Your task to perform on an android device: toggle notifications settings in the gmail app Image 0: 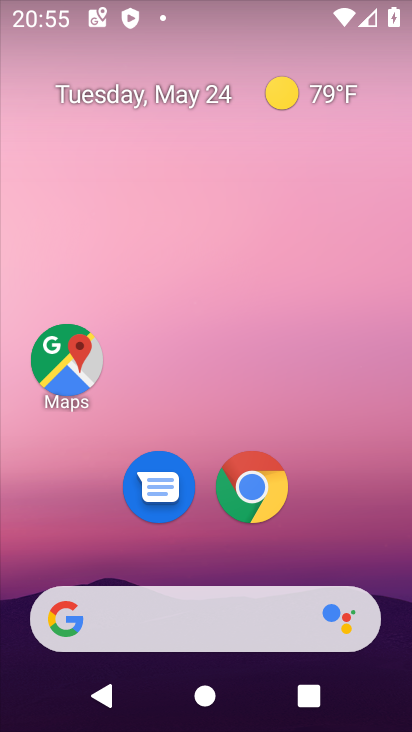
Step 0: press home button
Your task to perform on an android device: toggle notifications settings in the gmail app Image 1: 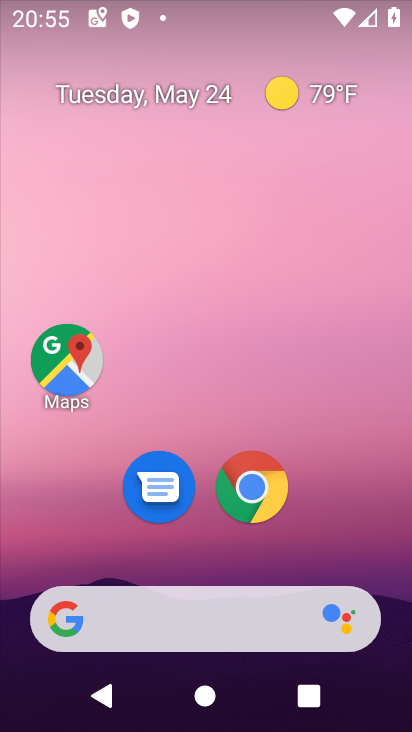
Step 1: drag from (340, 539) to (331, 4)
Your task to perform on an android device: toggle notifications settings in the gmail app Image 2: 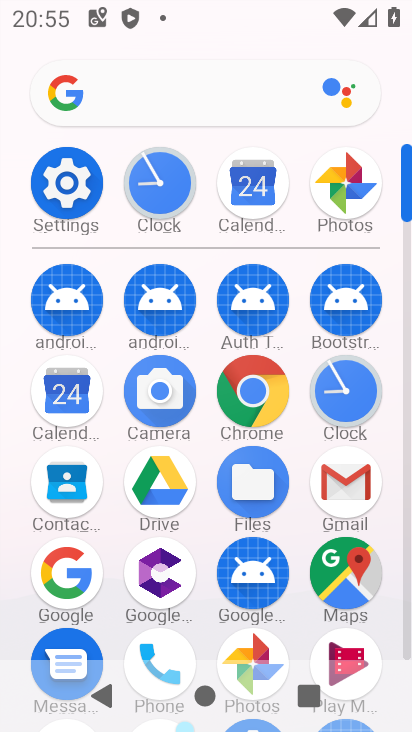
Step 2: click (347, 475)
Your task to perform on an android device: toggle notifications settings in the gmail app Image 3: 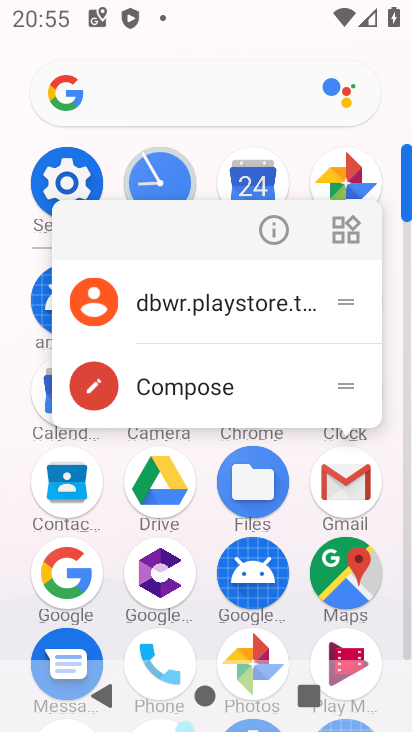
Step 3: click (276, 223)
Your task to perform on an android device: toggle notifications settings in the gmail app Image 4: 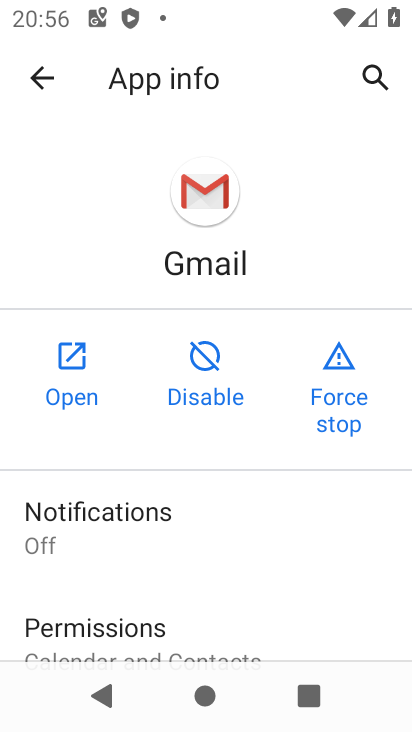
Step 4: click (137, 510)
Your task to perform on an android device: toggle notifications settings in the gmail app Image 5: 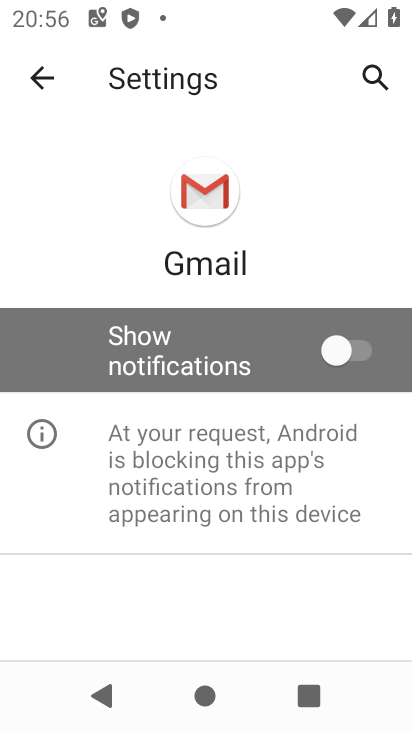
Step 5: click (272, 362)
Your task to perform on an android device: toggle notifications settings in the gmail app Image 6: 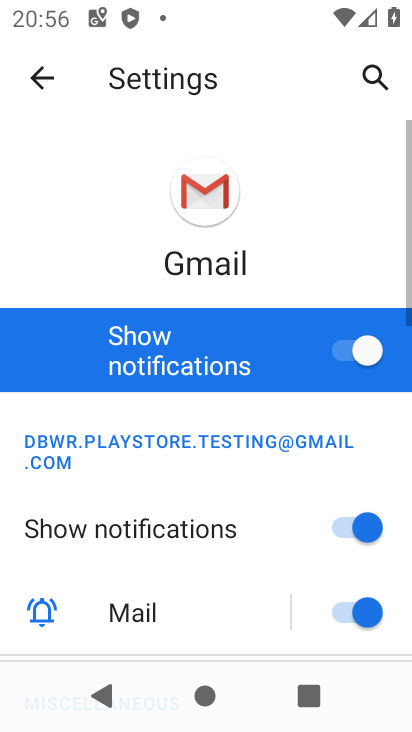
Step 6: task complete